Your task to perform on an android device: turn off location Image 0: 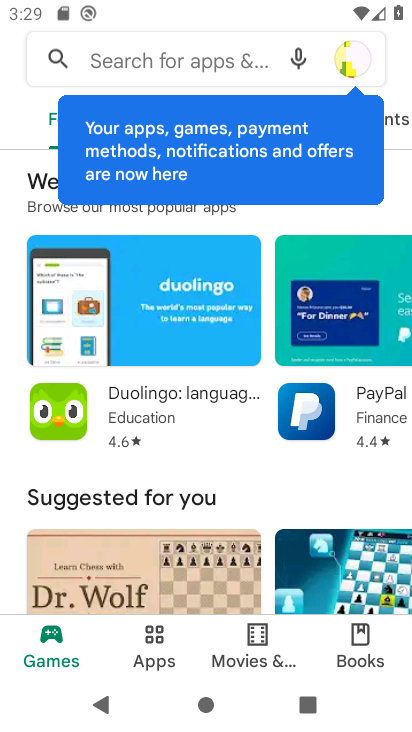
Step 0: press home button
Your task to perform on an android device: turn off location Image 1: 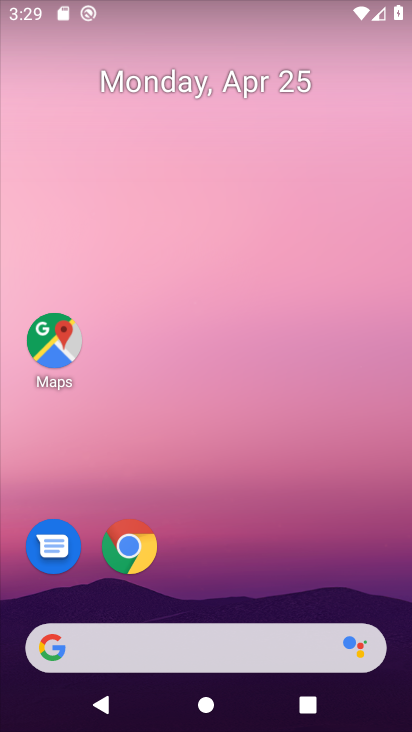
Step 1: drag from (244, 579) to (305, 0)
Your task to perform on an android device: turn off location Image 2: 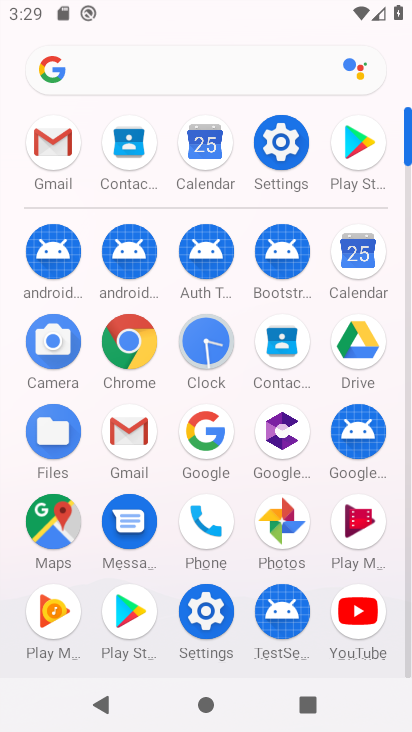
Step 2: click (264, 143)
Your task to perform on an android device: turn off location Image 3: 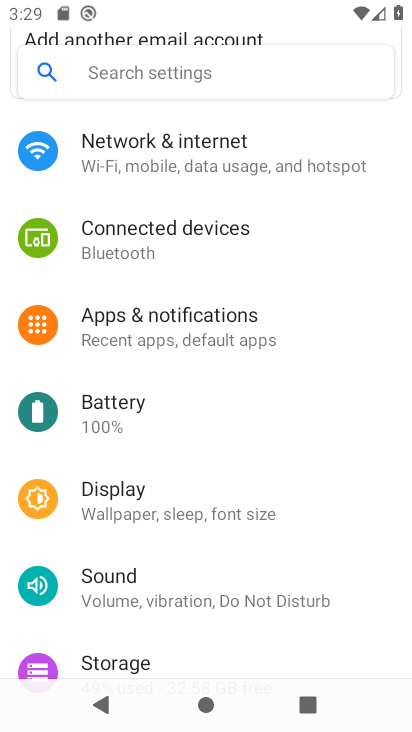
Step 3: drag from (154, 520) to (205, 243)
Your task to perform on an android device: turn off location Image 4: 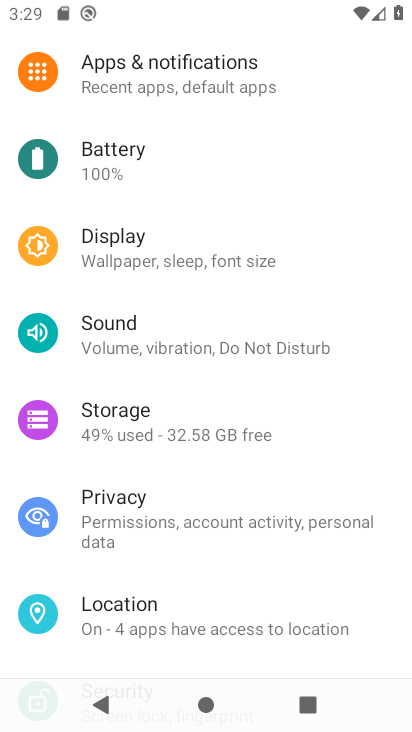
Step 4: drag from (178, 519) to (193, 345)
Your task to perform on an android device: turn off location Image 5: 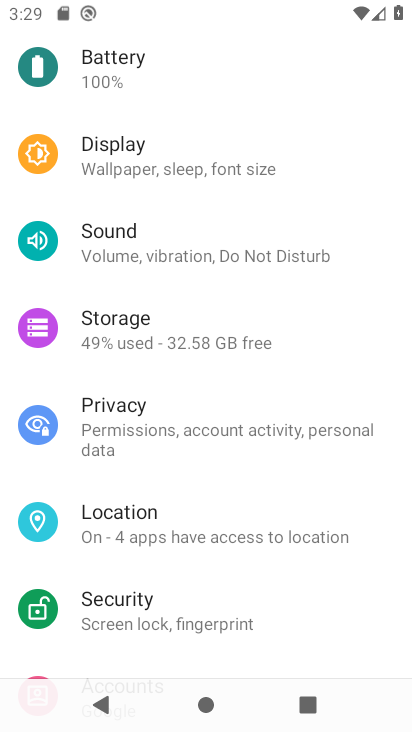
Step 5: click (194, 538)
Your task to perform on an android device: turn off location Image 6: 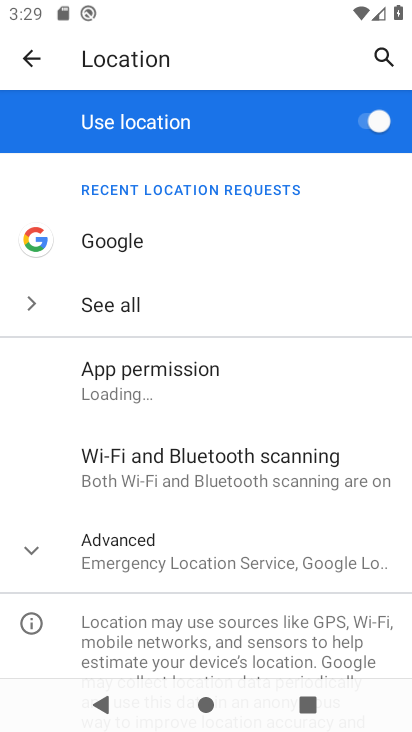
Step 6: click (360, 123)
Your task to perform on an android device: turn off location Image 7: 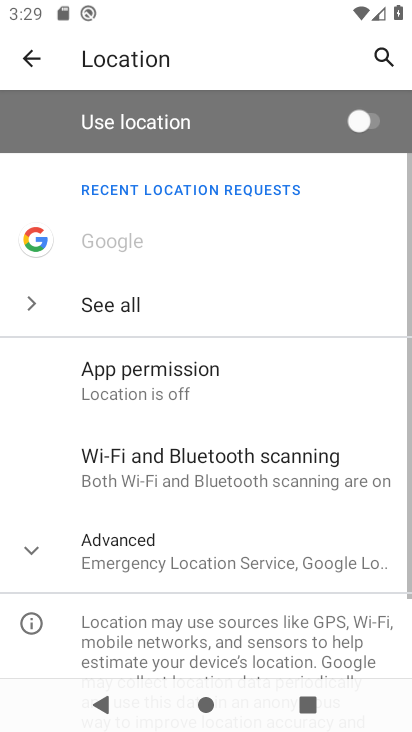
Step 7: task complete